Your task to perform on an android device: toggle sleep mode Image 0: 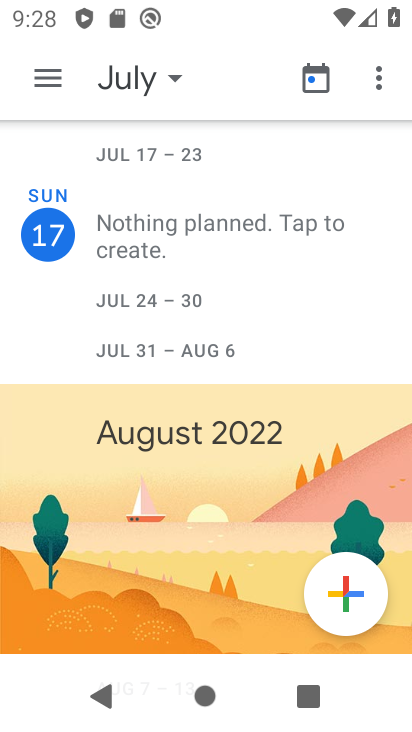
Step 0: press back button
Your task to perform on an android device: toggle sleep mode Image 1: 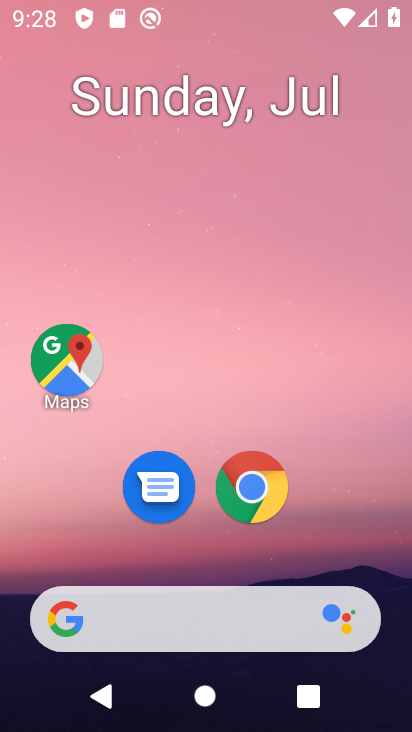
Step 1: drag from (230, 545) to (302, 2)
Your task to perform on an android device: toggle sleep mode Image 2: 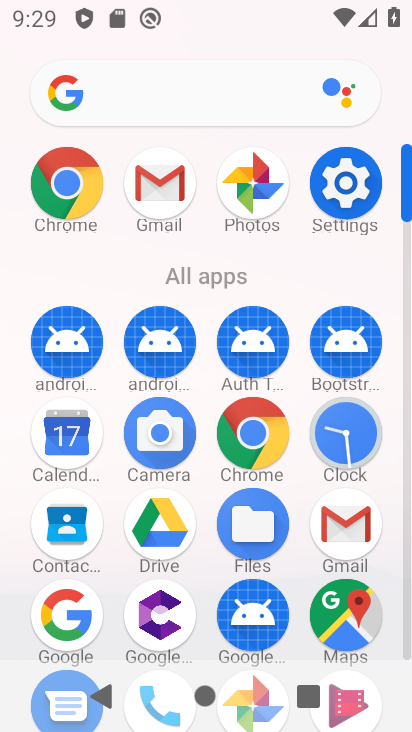
Step 2: click (356, 189)
Your task to perform on an android device: toggle sleep mode Image 3: 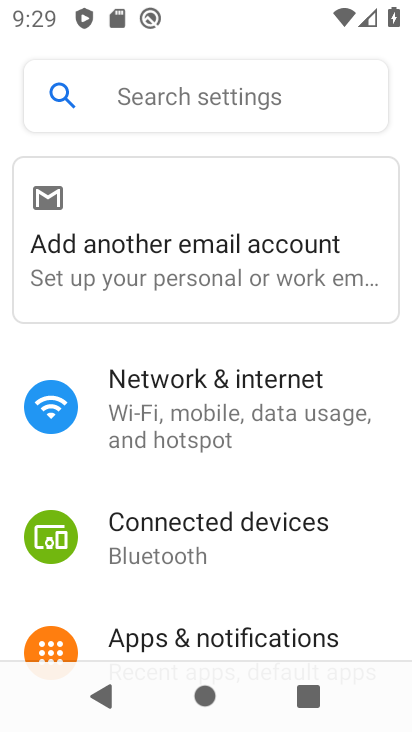
Step 3: click (174, 104)
Your task to perform on an android device: toggle sleep mode Image 4: 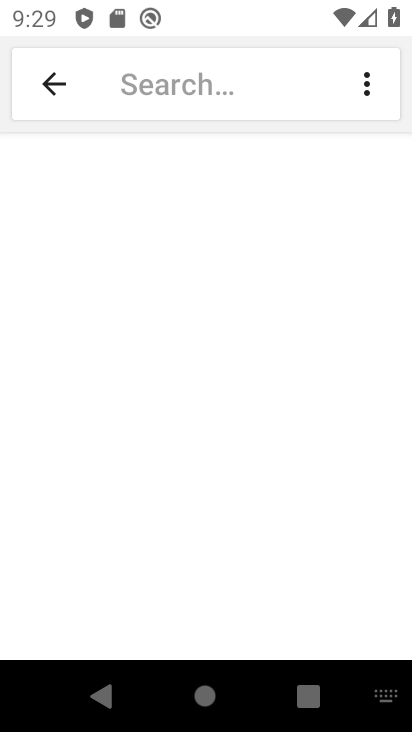
Step 4: type "sleep mode"
Your task to perform on an android device: toggle sleep mode Image 5: 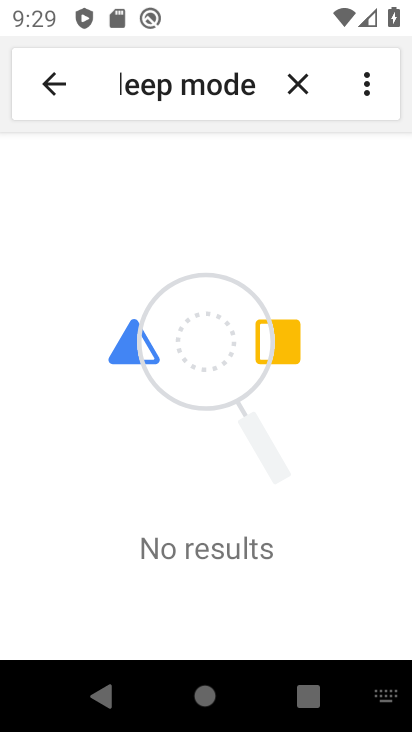
Step 5: task complete